Your task to perform on an android device: toggle data saver in the chrome app Image 0: 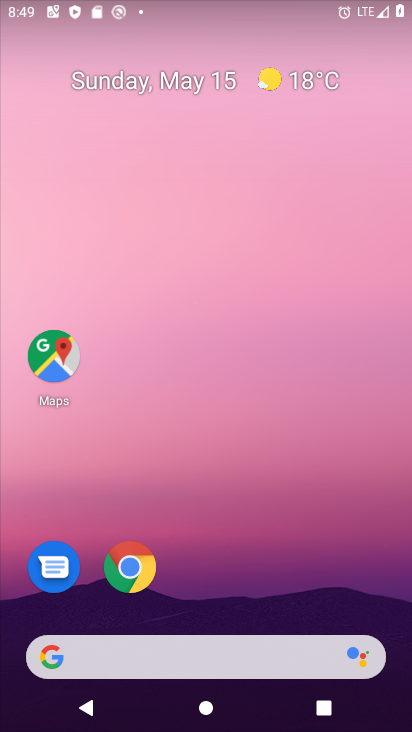
Step 0: click (110, 550)
Your task to perform on an android device: toggle data saver in the chrome app Image 1: 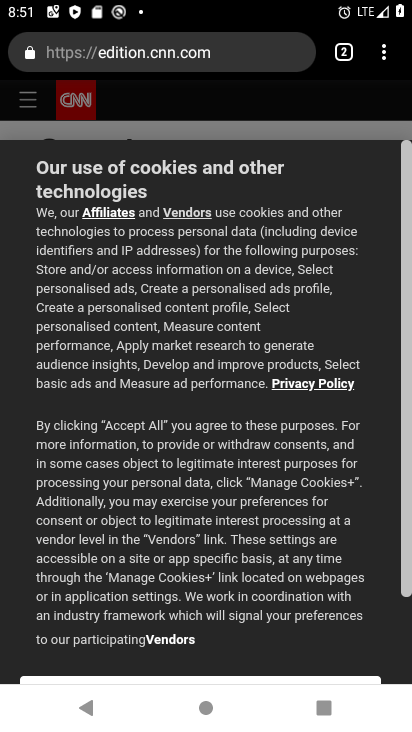
Step 1: click (389, 53)
Your task to perform on an android device: toggle data saver in the chrome app Image 2: 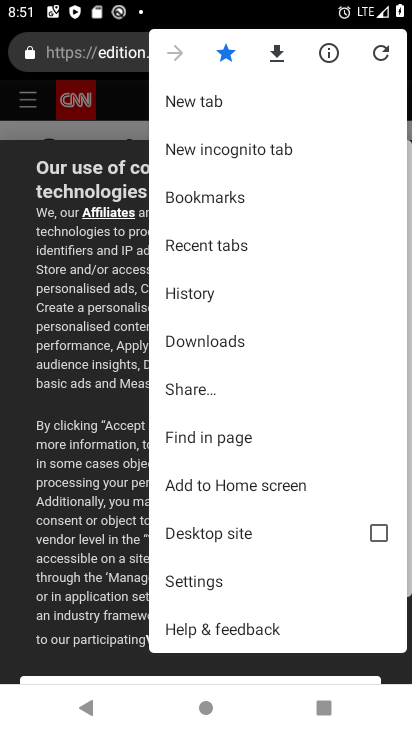
Step 2: click (221, 574)
Your task to perform on an android device: toggle data saver in the chrome app Image 3: 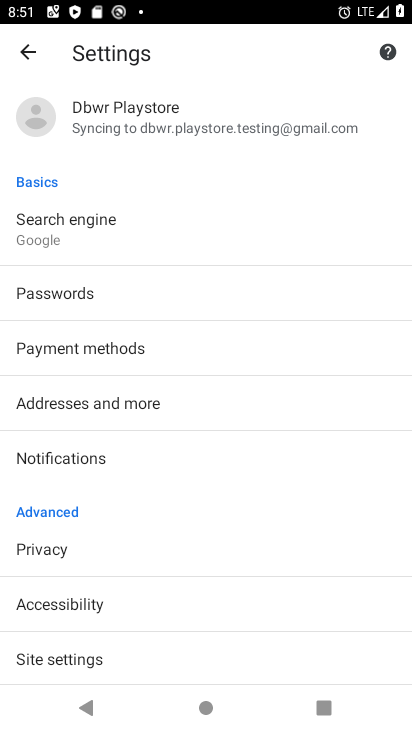
Step 3: drag from (206, 613) to (245, 362)
Your task to perform on an android device: toggle data saver in the chrome app Image 4: 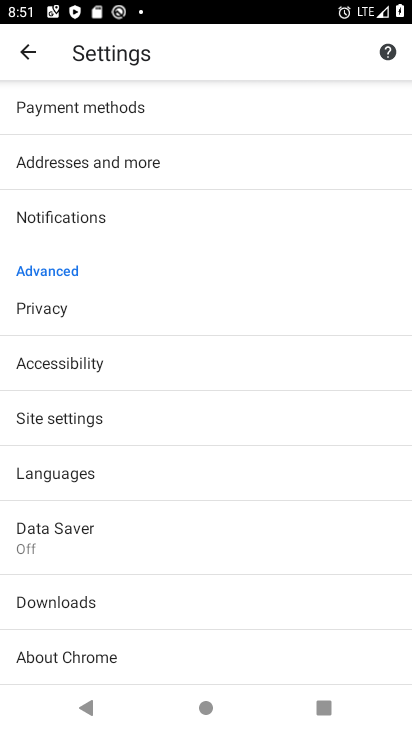
Step 4: click (71, 531)
Your task to perform on an android device: toggle data saver in the chrome app Image 5: 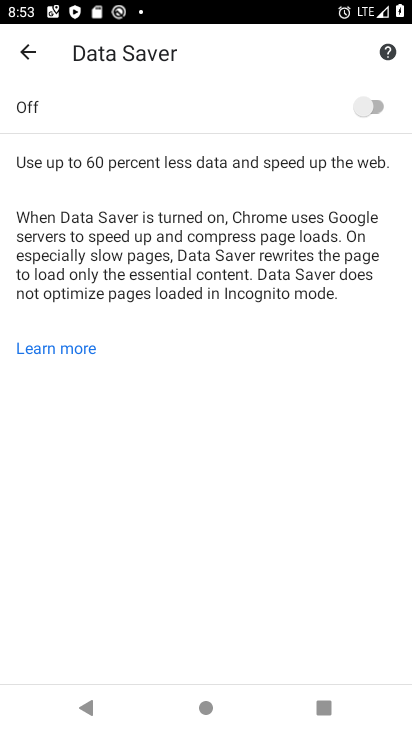
Step 5: click (377, 107)
Your task to perform on an android device: toggle data saver in the chrome app Image 6: 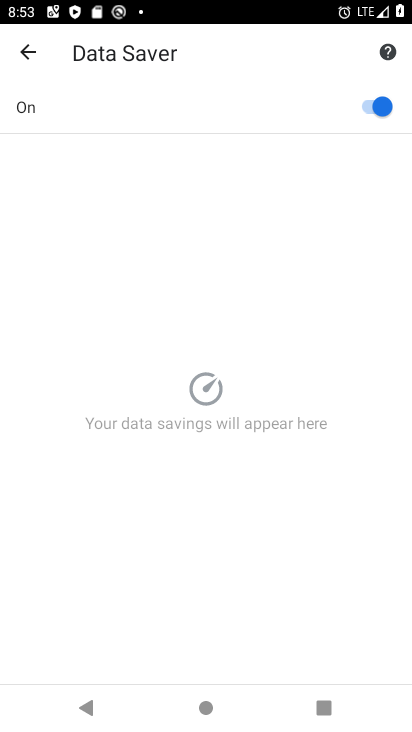
Step 6: task complete